Your task to perform on an android device: Check the news Image 0: 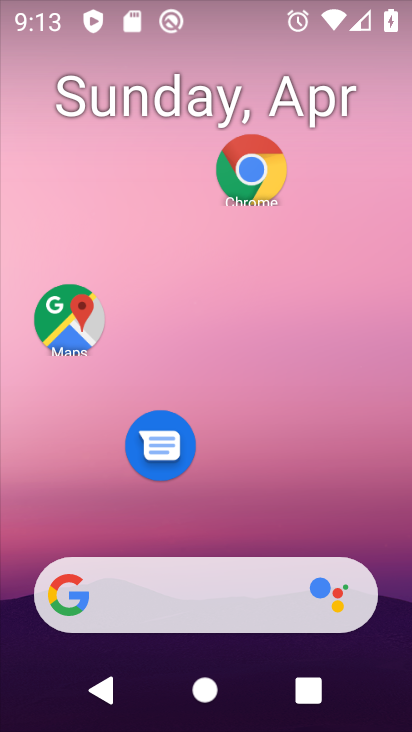
Step 0: drag from (271, 505) to (289, 11)
Your task to perform on an android device: Check the news Image 1: 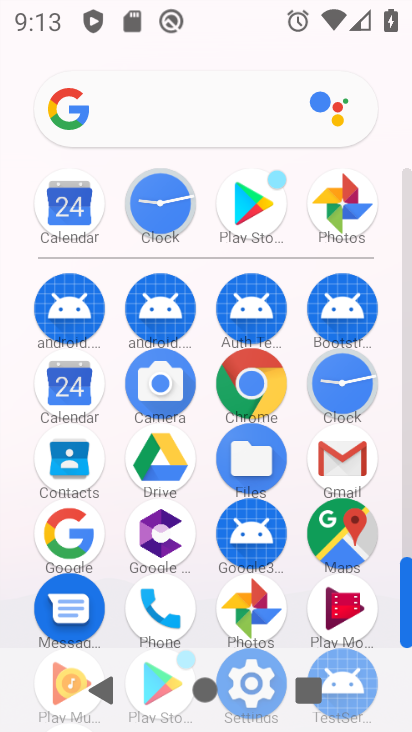
Step 1: click (69, 533)
Your task to perform on an android device: Check the news Image 2: 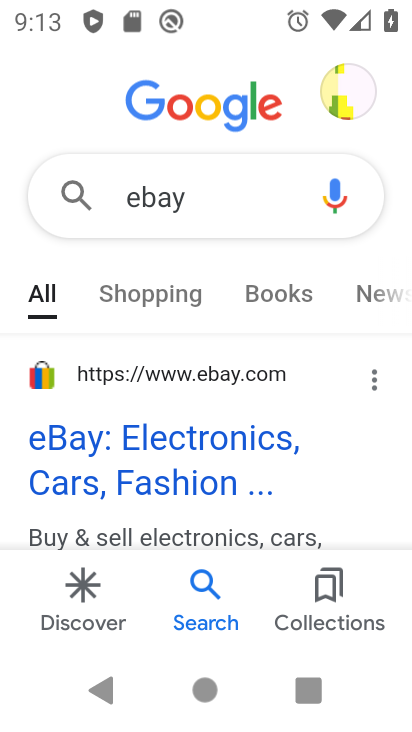
Step 2: click (254, 193)
Your task to perform on an android device: Check the news Image 3: 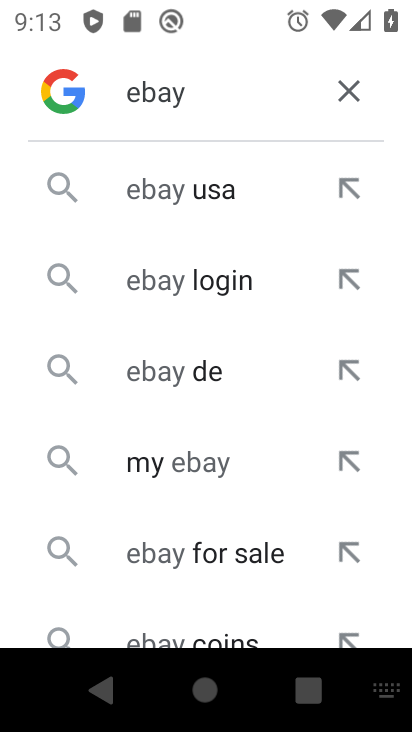
Step 3: click (357, 87)
Your task to perform on an android device: Check the news Image 4: 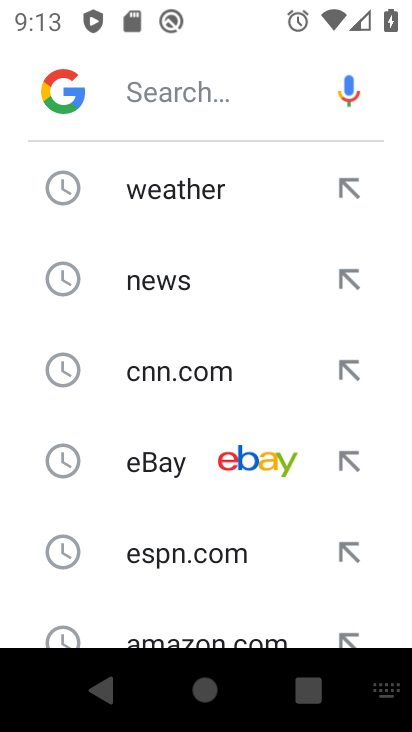
Step 4: click (220, 291)
Your task to perform on an android device: Check the news Image 5: 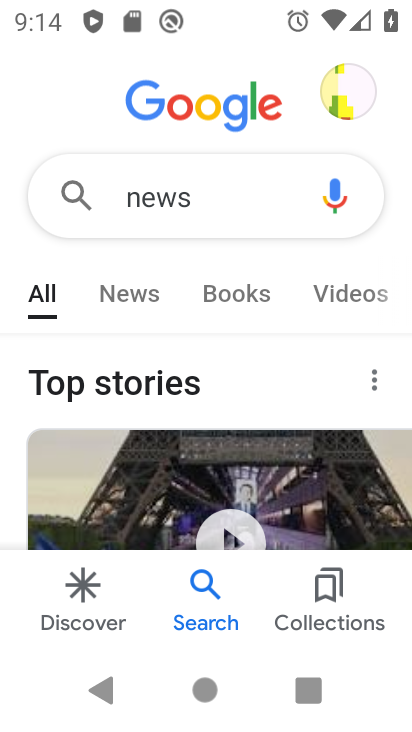
Step 5: task complete